Your task to perform on an android device: show emergency info Image 0: 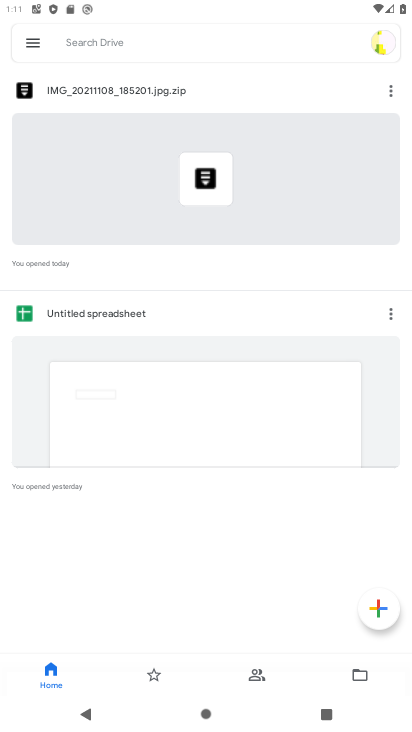
Step 0: press home button
Your task to perform on an android device: show emergency info Image 1: 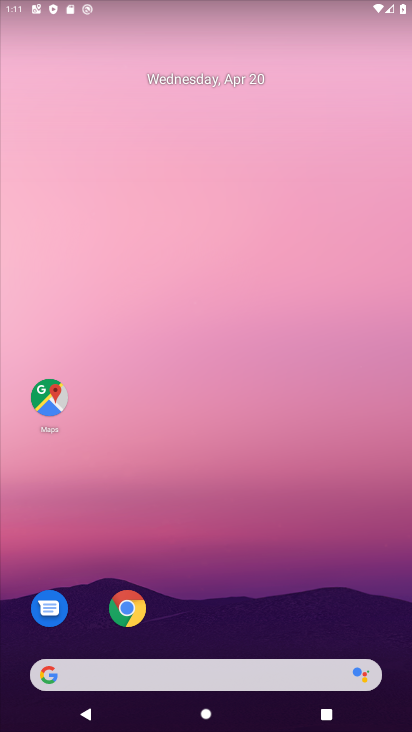
Step 1: drag from (219, 685) to (208, 33)
Your task to perform on an android device: show emergency info Image 2: 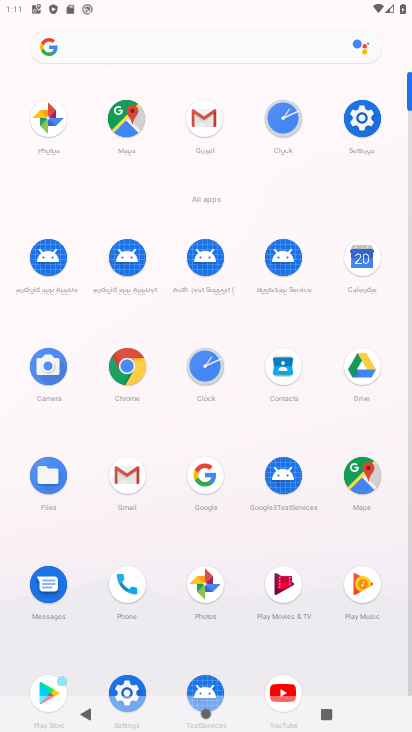
Step 2: click (357, 122)
Your task to perform on an android device: show emergency info Image 3: 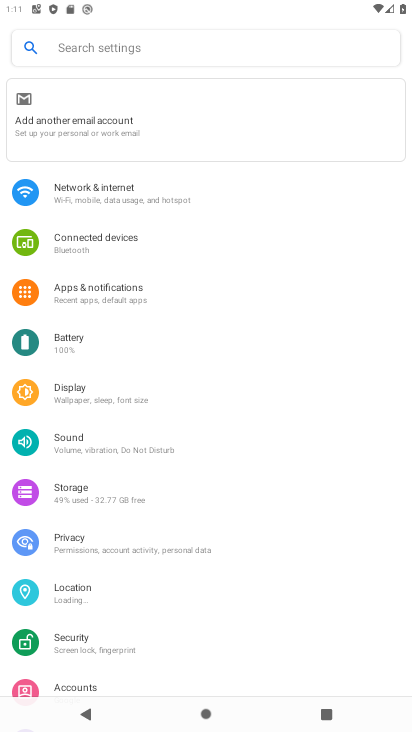
Step 3: drag from (216, 651) to (201, 221)
Your task to perform on an android device: show emergency info Image 4: 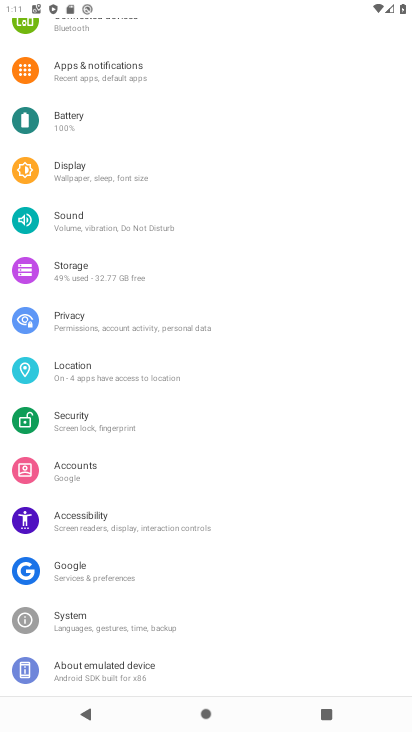
Step 4: click (124, 660)
Your task to perform on an android device: show emergency info Image 5: 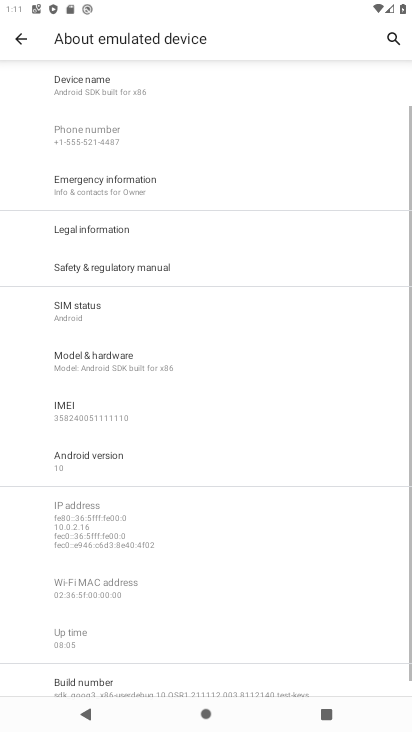
Step 5: click (129, 183)
Your task to perform on an android device: show emergency info Image 6: 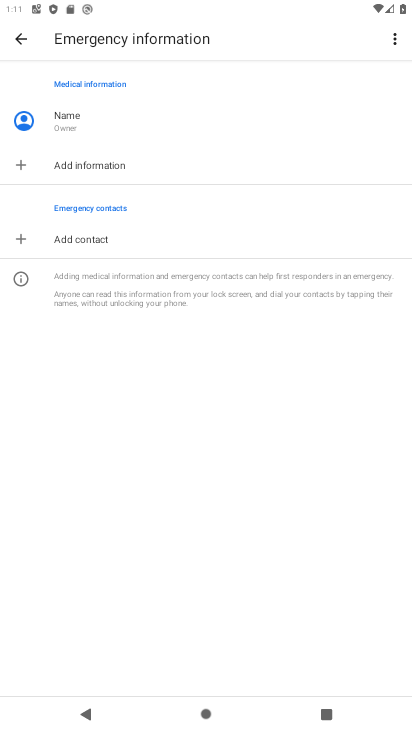
Step 6: task complete